Your task to perform on an android device: check google app version Image 0: 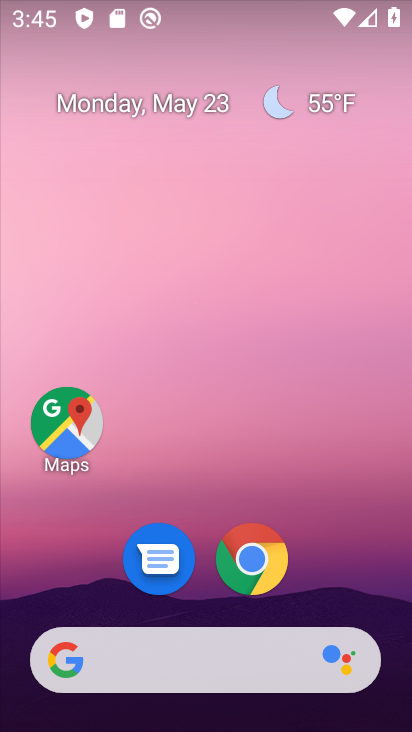
Step 0: drag from (304, 693) to (333, 36)
Your task to perform on an android device: check google app version Image 1: 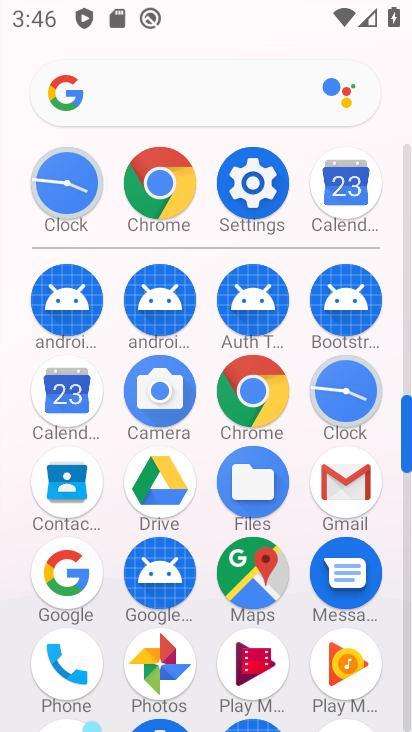
Step 1: click (55, 571)
Your task to perform on an android device: check google app version Image 2: 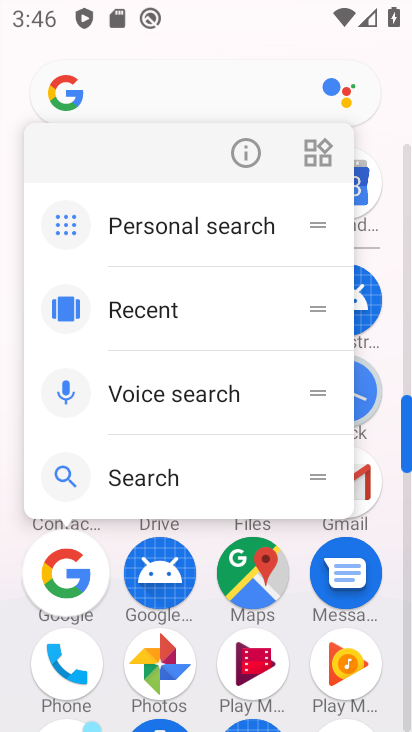
Step 2: click (55, 571)
Your task to perform on an android device: check google app version Image 3: 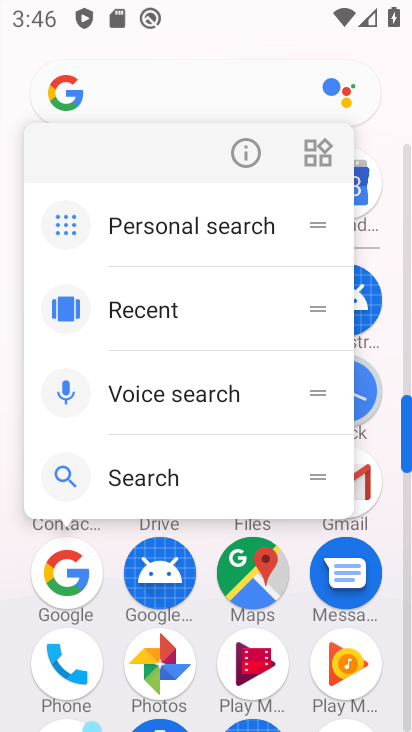
Step 3: click (220, 84)
Your task to perform on an android device: check google app version Image 4: 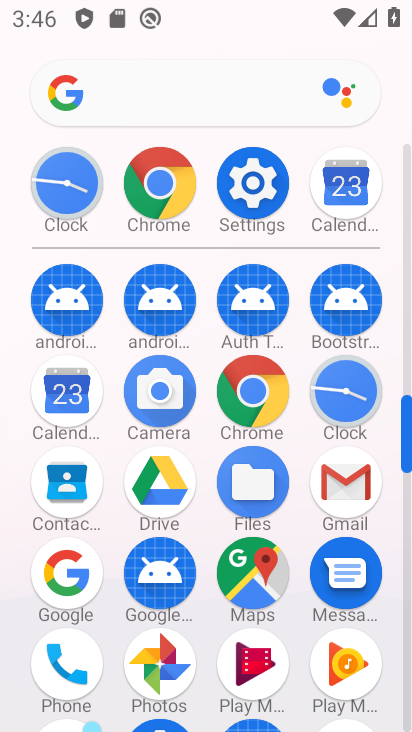
Step 4: click (220, 84)
Your task to perform on an android device: check google app version Image 5: 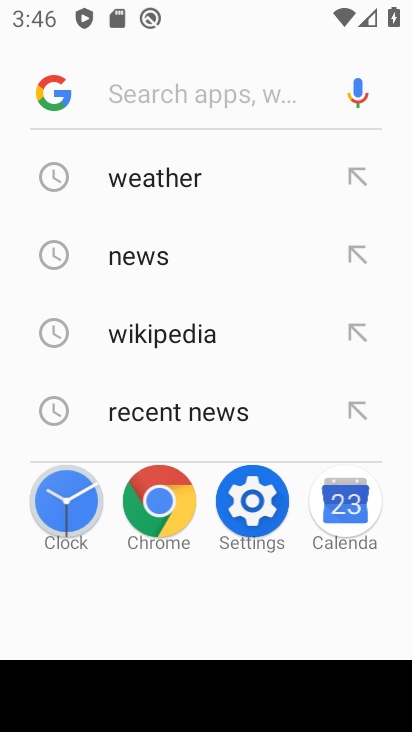
Step 5: press back button
Your task to perform on an android device: check google app version Image 6: 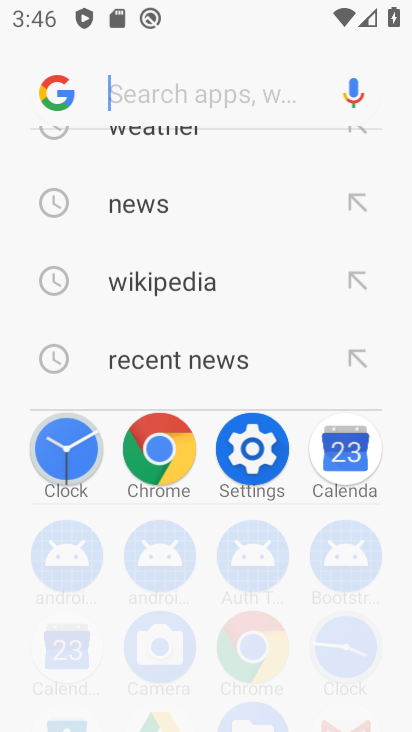
Step 6: press back button
Your task to perform on an android device: check google app version Image 7: 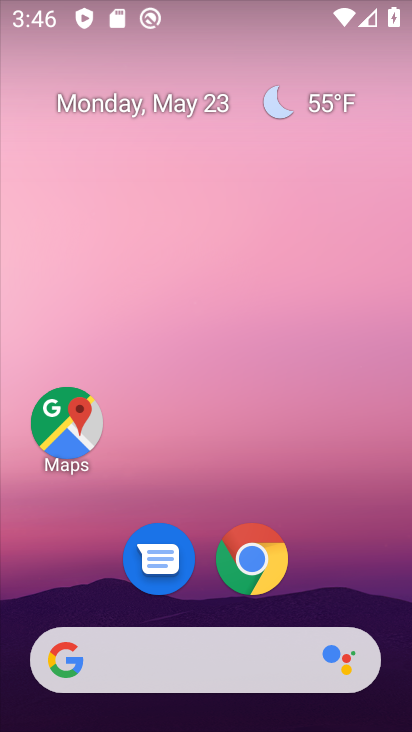
Step 7: drag from (277, 584) to (205, 85)
Your task to perform on an android device: check google app version Image 8: 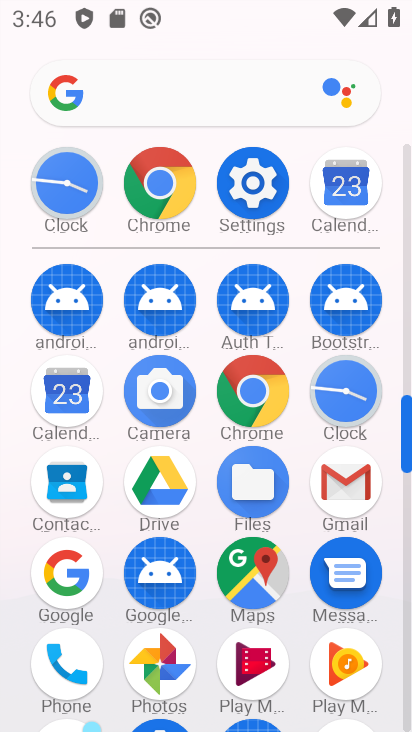
Step 8: click (64, 572)
Your task to perform on an android device: check google app version Image 9: 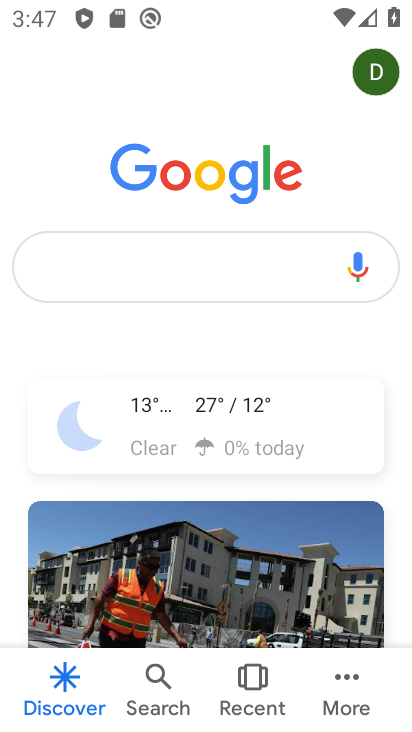
Step 9: click (349, 677)
Your task to perform on an android device: check google app version Image 10: 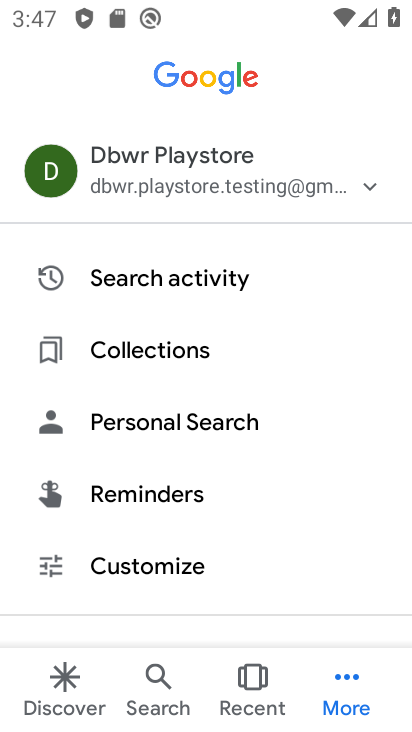
Step 10: drag from (177, 144) to (171, 103)
Your task to perform on an android device: check google app version Image 11: 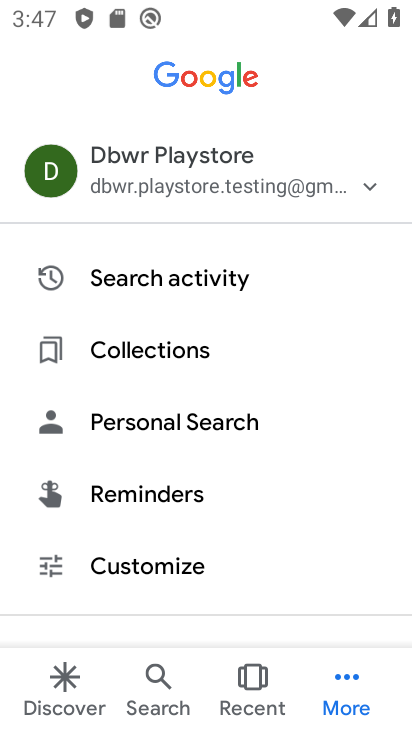
Step 11: drag from (223, 263) to (208, 170)
Your task to perform on an android device: check google app version Image 12: 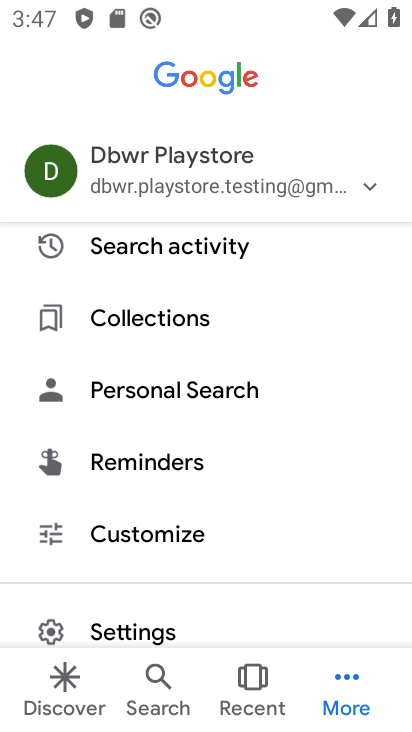
Step 12: drag from (271, 428) to (219, 73)
Your task to perform on an android device: check google app version Image 13: 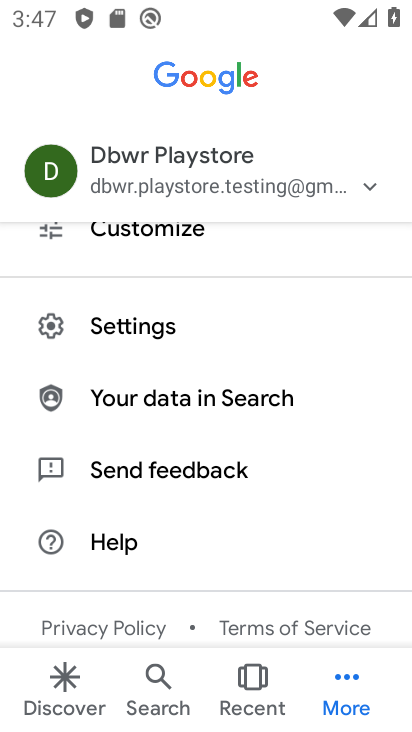
Step 13: drag from (223, 507) to (205, 276)
Your task to perform on an android device: check google app version Image 14: 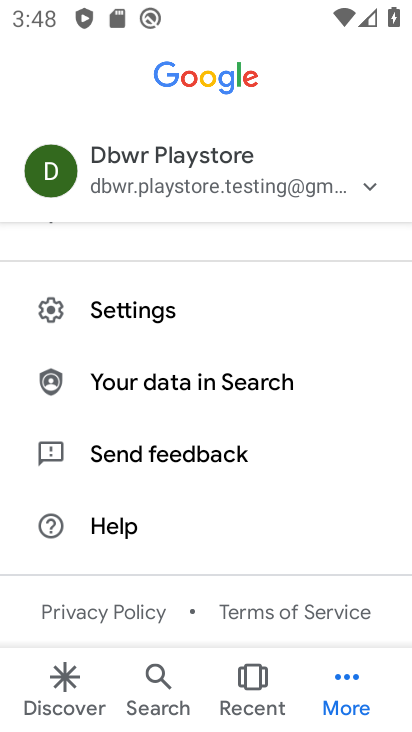
Step 14: click (131, 318)
Your task to perform on an android device: check google app version Image 15: 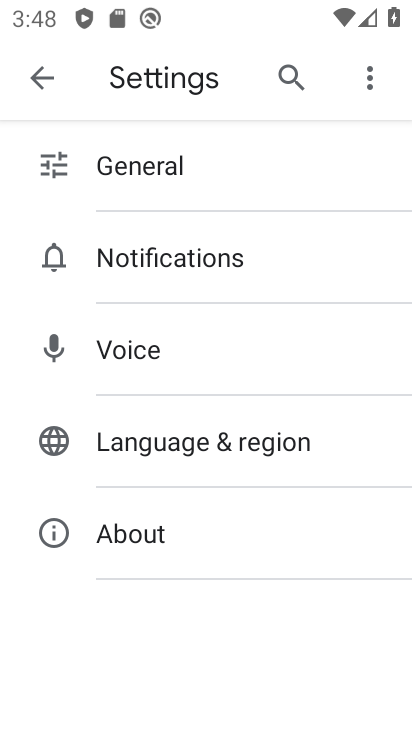
Step 15: task complete